Your task to perform on an android device: open chrome privacy settings Image 0: 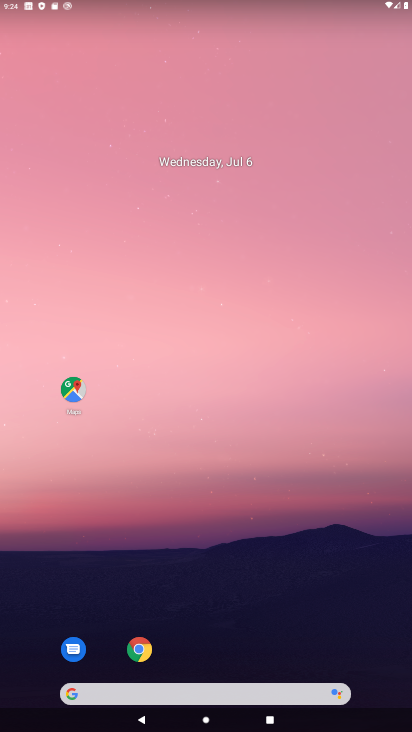
Step 0: click (133, 664)
Your task to perform on an android device: open chrome privacy settings Image 1: 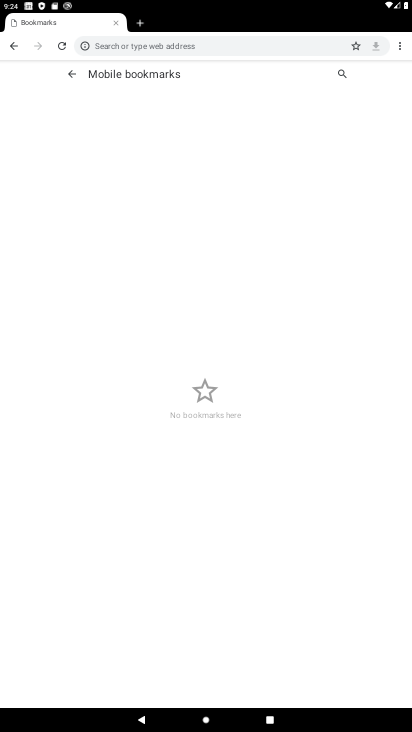
Step 1: drag from (401, 49) to (322, 210)
Your task to perform on an android device: open chrome privacy settings Image 2: 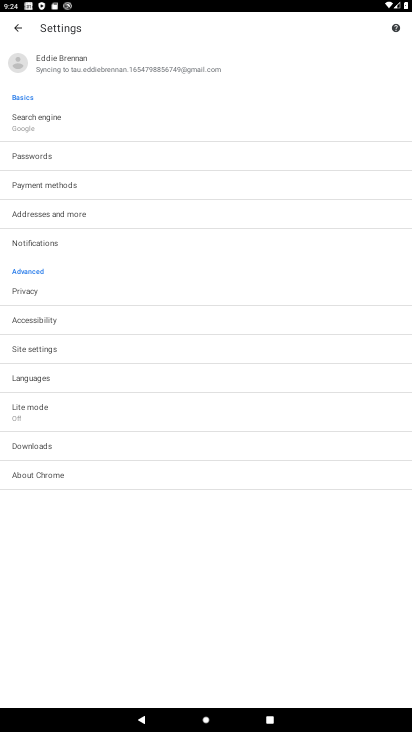
Step 2: click (54, 289)
Your task to perform on an android device: open chrome privacy settings Image 3: 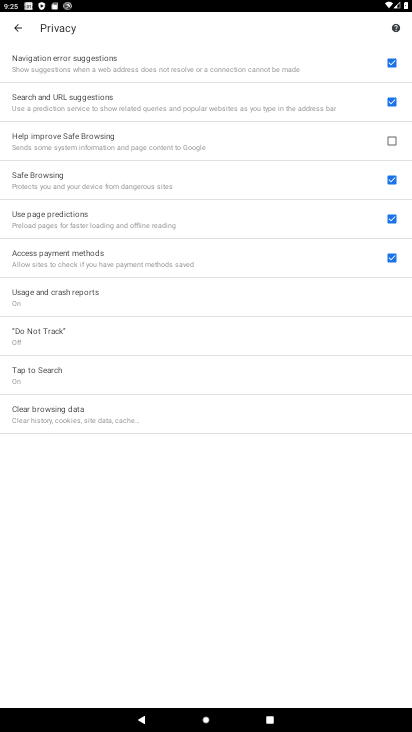
Step 3: task complete